Your task to perform on an android device: check battery use Image 0: 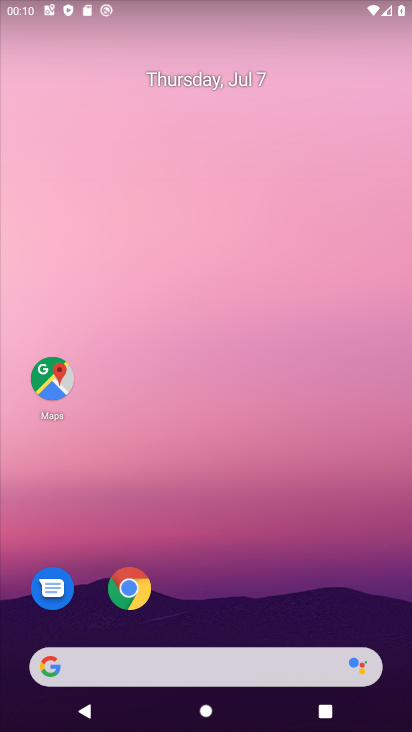
Step 0: drag from (250, 721) to (211, 115)
Your task to perform on an android device: check battery use Image 1: 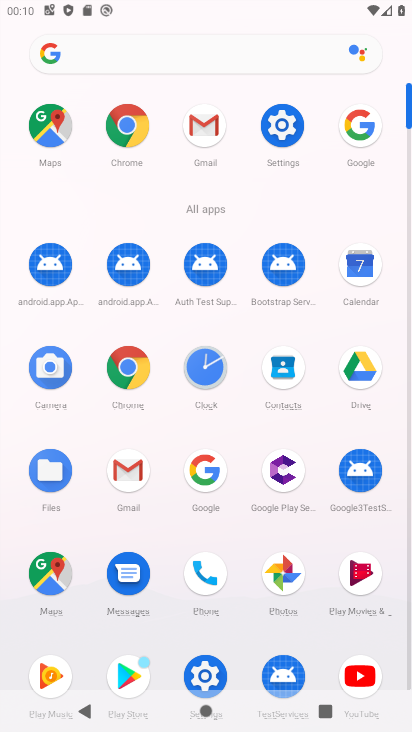
Step 1: click (277, 135)
Your task to perform on an android device: check battery use Image 2: 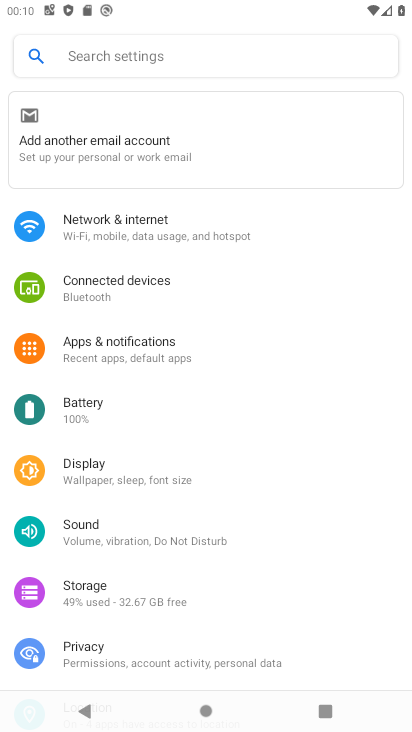
Step 2: click (82, 403)
Your task to perform on an android device: check battery use Image 3: 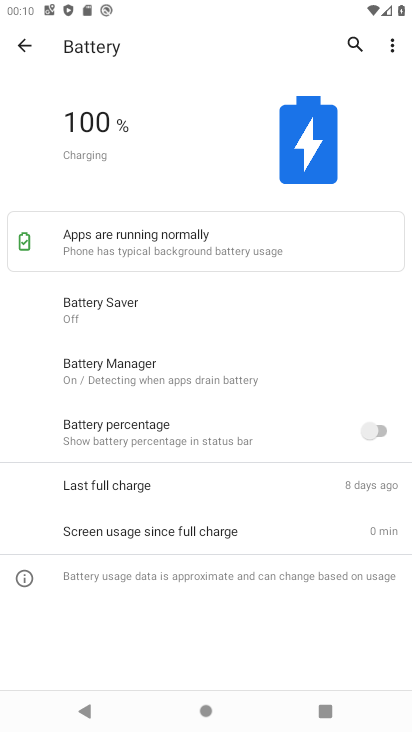
Step 3: click (390, 48)
Your task to perform on an android device: check battery use Image 4: 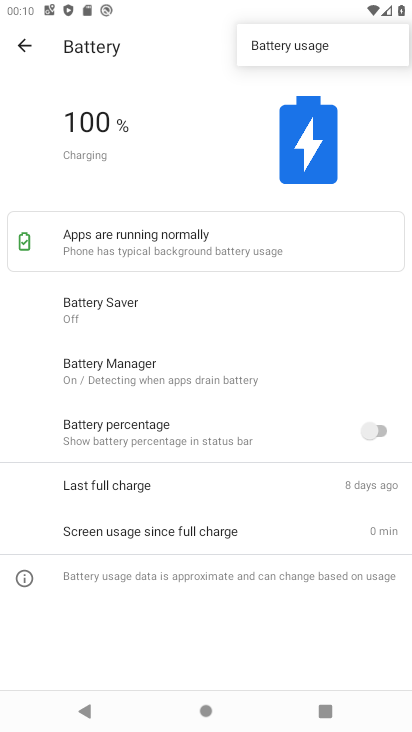
Step 4: click (298, 46)
Your task to perform on an android device: check battery use Image 5: 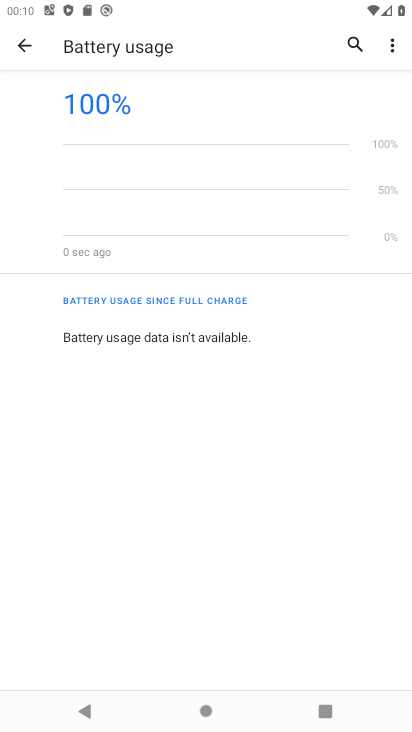
Step 5: task complete